Your task to perform on an android device: check google app version Image 0: 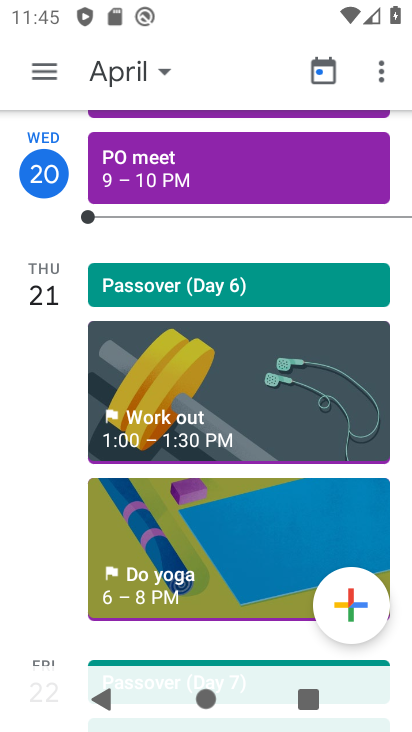
Step 0: press home button
Your task to perform on an android device: check google app version Image 1: 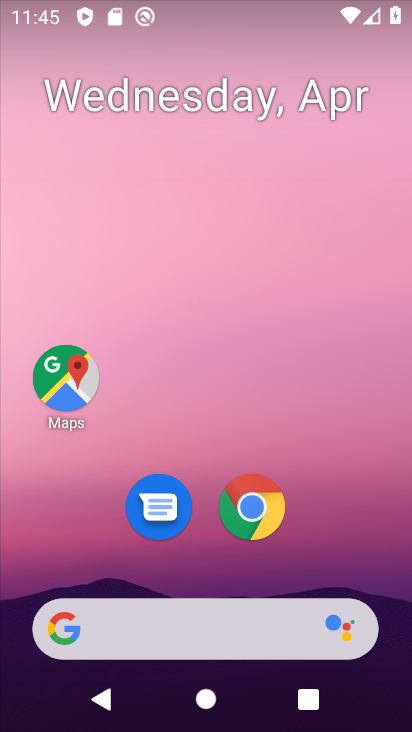
Step 1: drag from (287, 568) to (389, 73)
Your task to perform on an android device: check google app version Image 2: 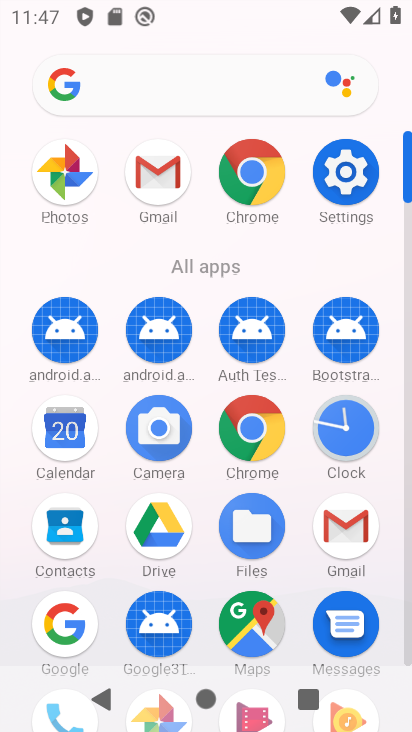
Step 2: click (62, 605)
Your task to perform on an android device: check google app version Image 3: 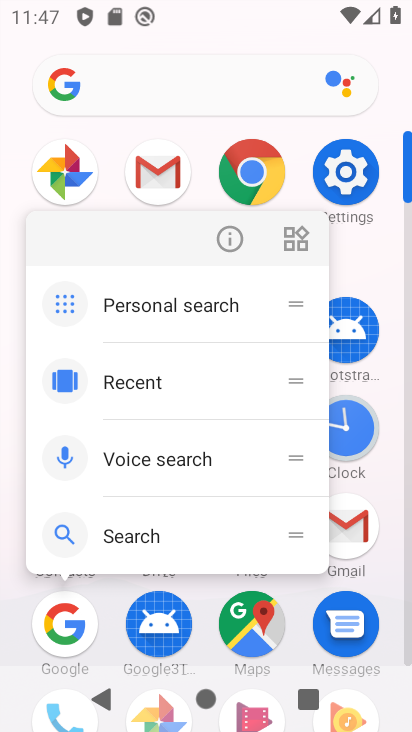
Step 3: click (223, 249)
Your task to perform on an android device: check google app version Image 4: 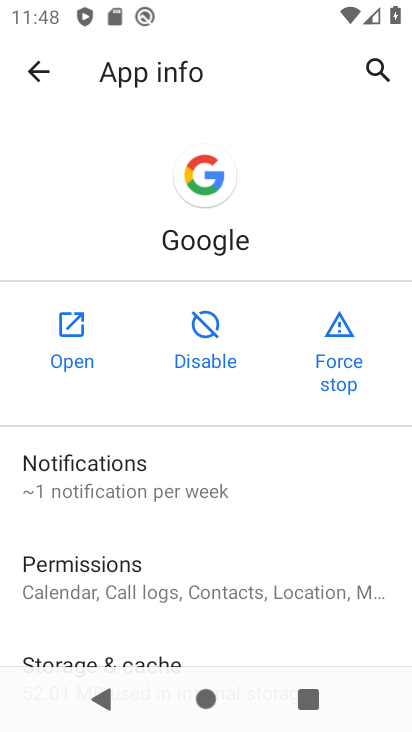
Step 4: drag from (53, 640) to (187, 112)
Your task to perform on an android device: check google app version Image 5: 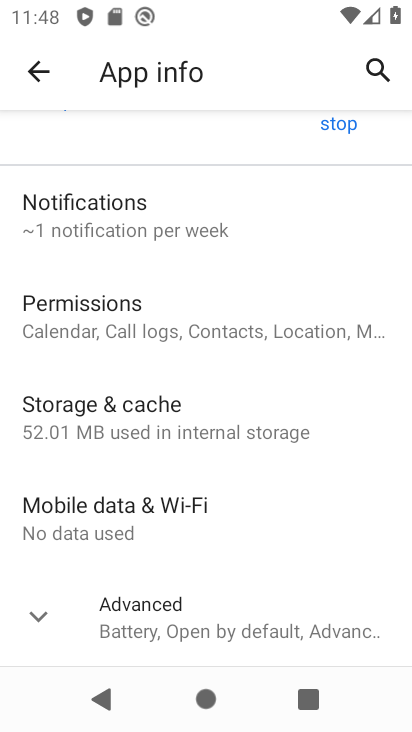
Step 5: click (40, 630)
Your task to perform on an android device: check google app version Image 6: 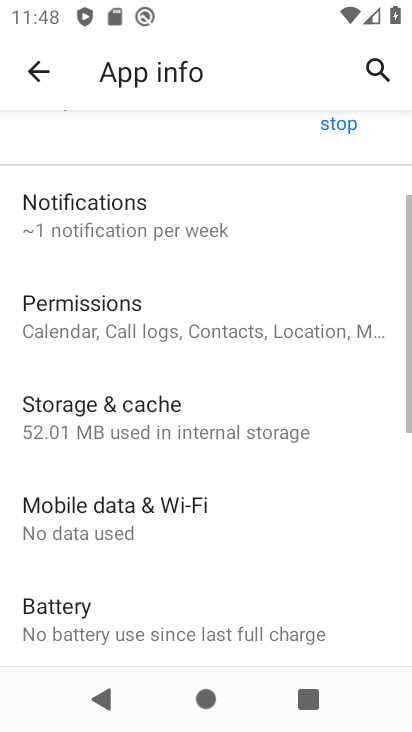
Step 6: task complete